Your task to perform on an android device: What is the news today? Image 0: 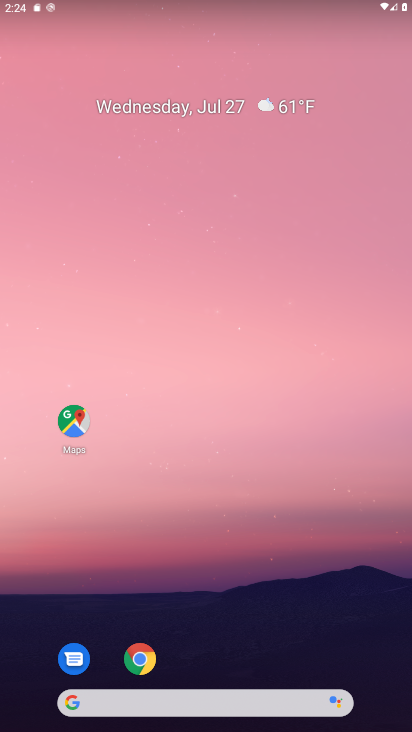
Step 0: click (145, 661)
Your task to perform on an android device: What is the news today? Image 1: 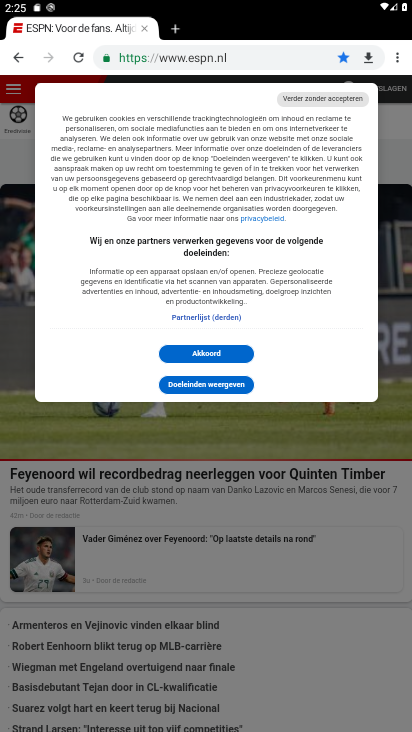
Step 1: click (196, 66)
Your task to perform on an android device: What is the news today? Image 2: 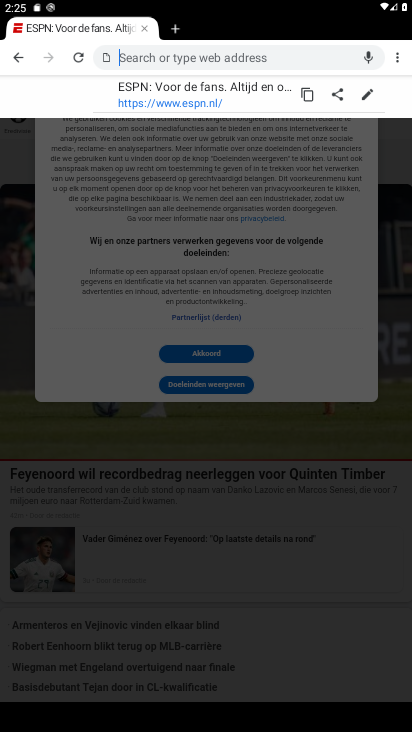
Step 2: type "news today"
Your task to perform on an android device: What is the news today? Image 3: 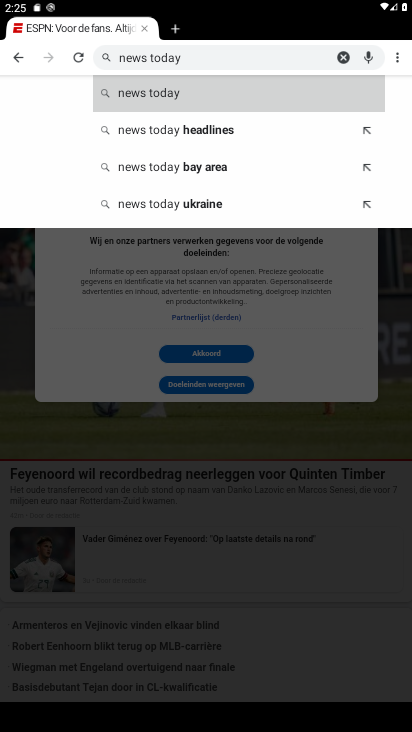
Step 3: click (178, 91)
Your task to perform on an android device: What is the news today? Image 4: 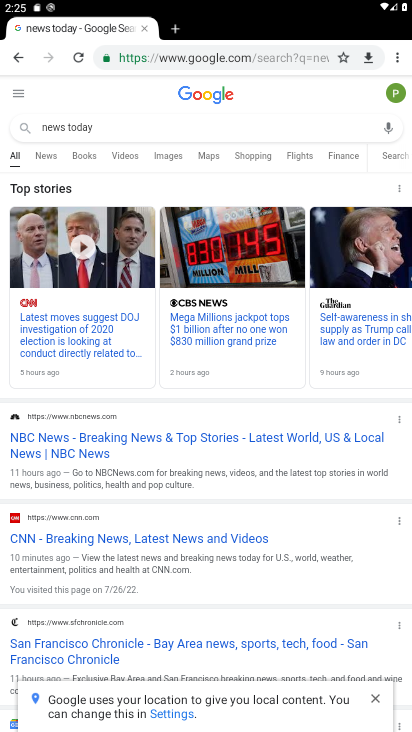
Step 4: task complete